Your task to perform on an android device: choose inbox layout in the gmail app Image 0: 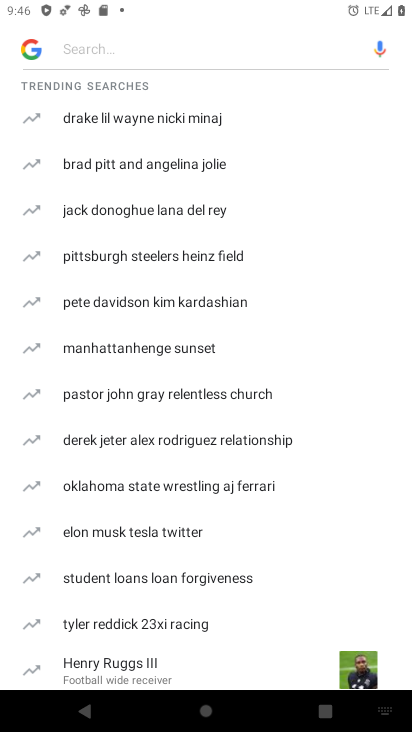
Step 0: press home button
Your task to perform on an android device: choose inbox layout in the gmail app Image 1: 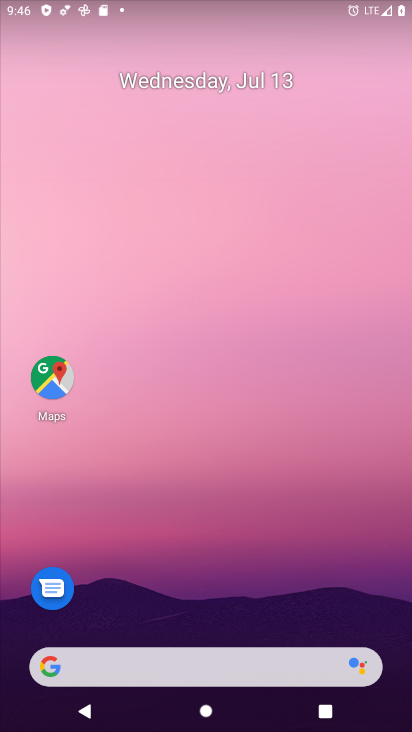
Step 1: drag from (235, 711) to (236, 200)
Your task to perform on an android device: choose inbox layout in the gmail app Image 2: 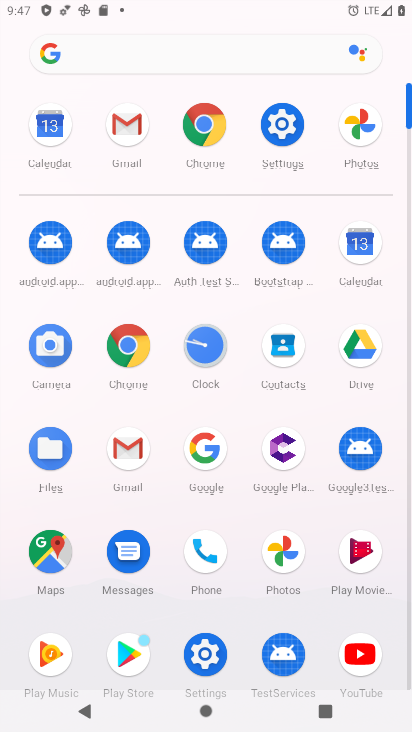
Step 2: click (115, 140)
Your task to perform on an android device: choose inbox layout in the gmail app Image 3: 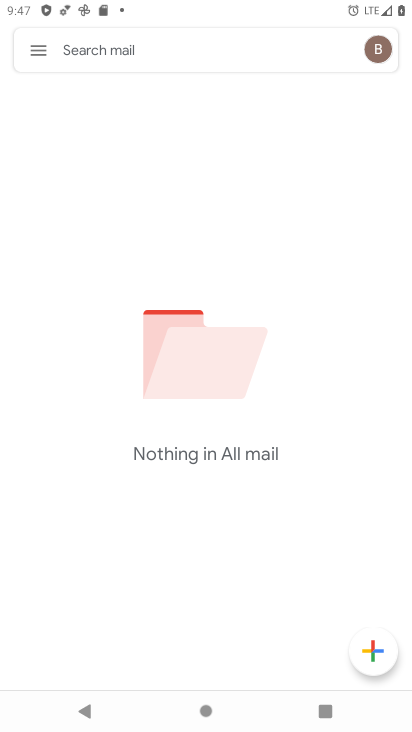
Step 3: click (35, 45)
Your task to perform on an android device: choose inbox layout in the gmail app Image 4: 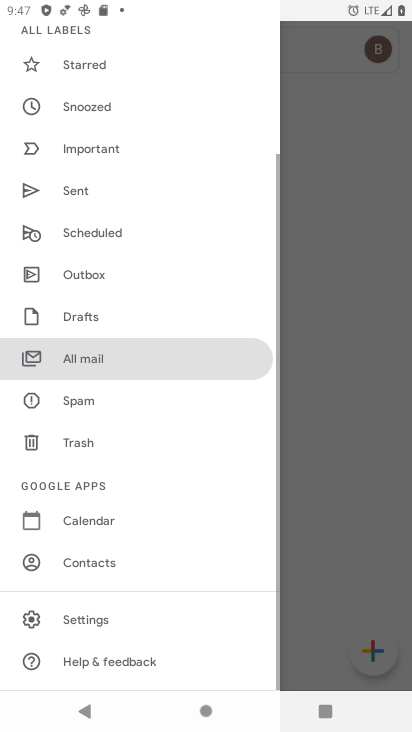
Step 4: click (92, 625)
Your task to perform on an android device: choose inbox layout in the gmail app Image 5: 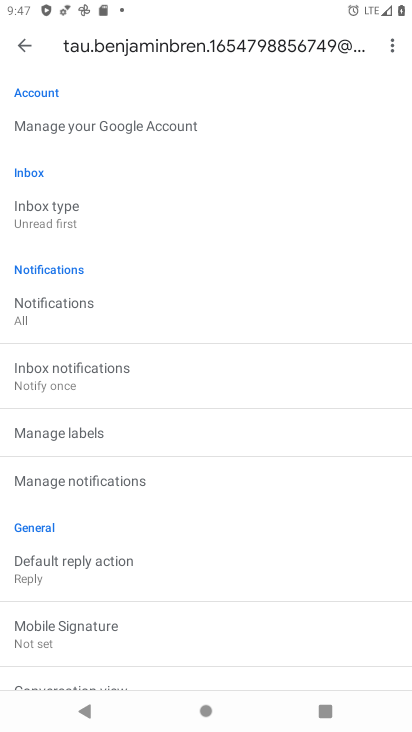
Step 5: click (86, 222)
Your task to perform on an android device: choose inbox layout in the gmail app Image 6: 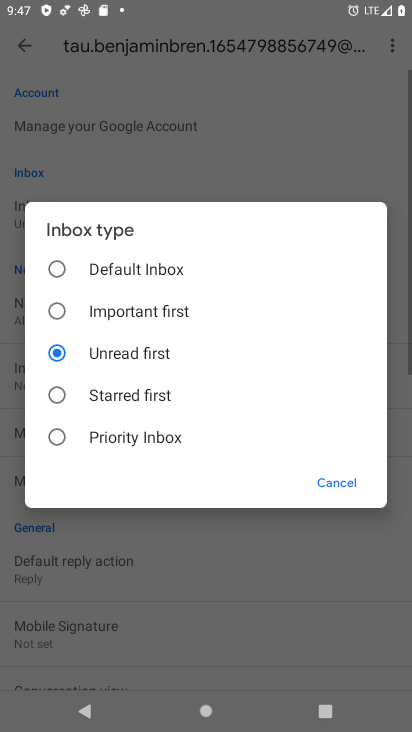
Step 6: click (86, 267)
Your task to perform on an android device: choose inbox layout in the gmail app Image 7: 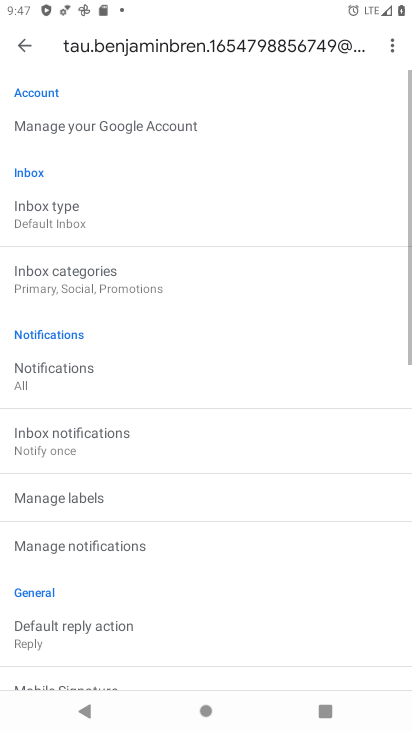
Step 7: task complete